Your task to perform on an android device: manage bookmarks in the chrome app Image 0: 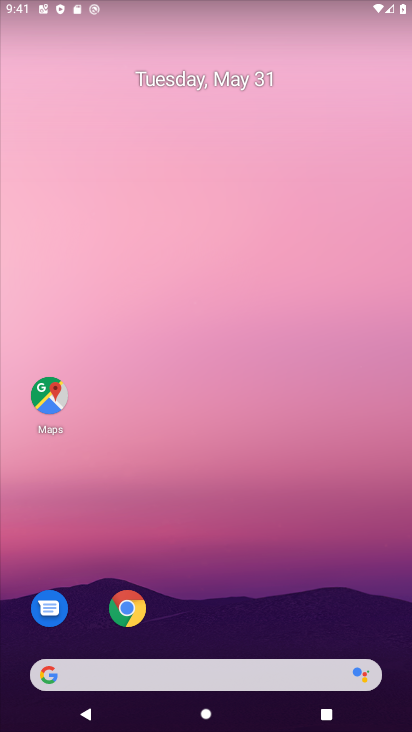
Step 0: click (134, 592)
Your task to perform on an android device: manage bookmarks in the chrome app Image 1: 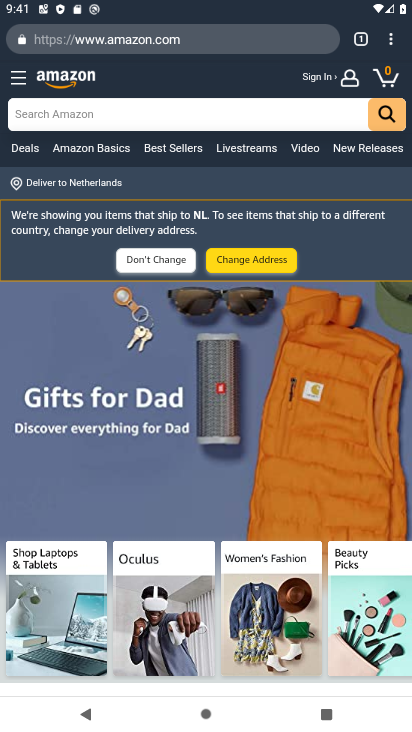
Step 1: click (385, 40)
Your task to perform on an android device: manage bookmarks in the chrome app Image 2: 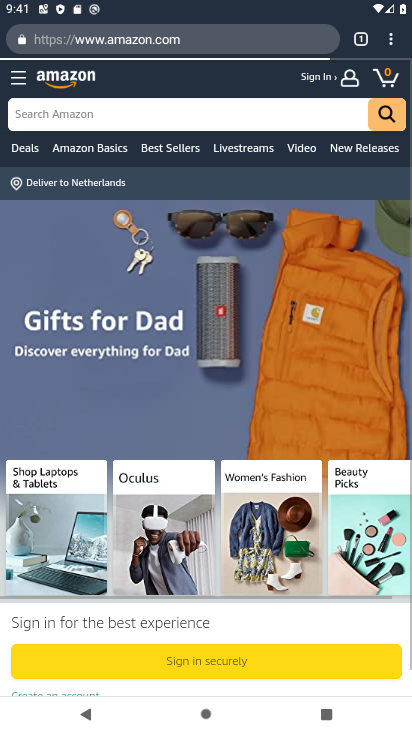
Step 2: click (390, 33)
Your task to perform on an android device: manage bookmarks in the chrome app Image 3: 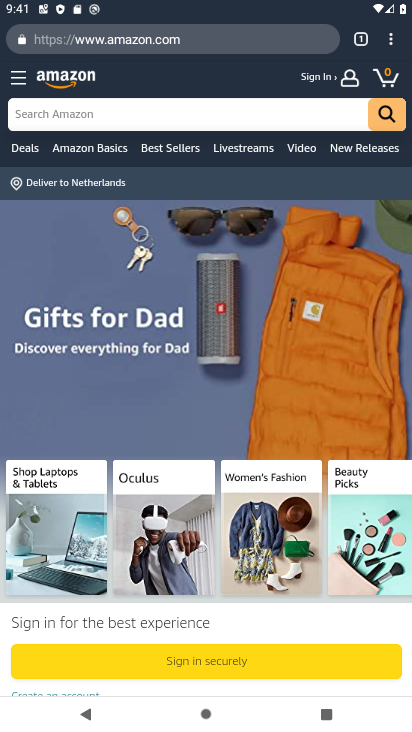
Step 3: drag from (387, 40) to (268, 196)
Your task to perform on an android device: manage bookmarks in the chrome app Image 4: 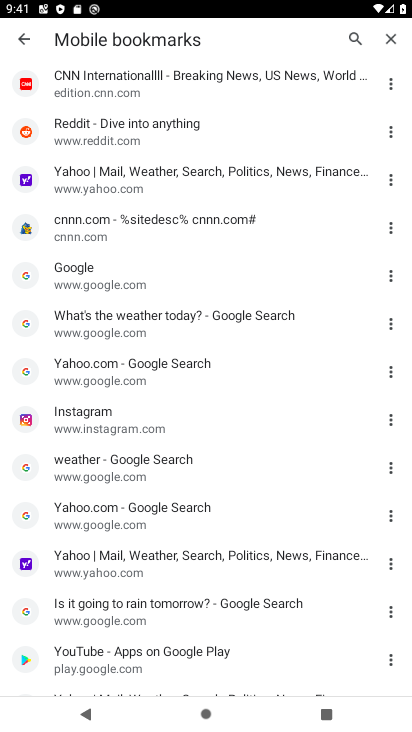
Step 4: drag from (228, 120) to (237, 157)
Your task to perform on an android device: manage bookmarks in the chrome app Image 5: 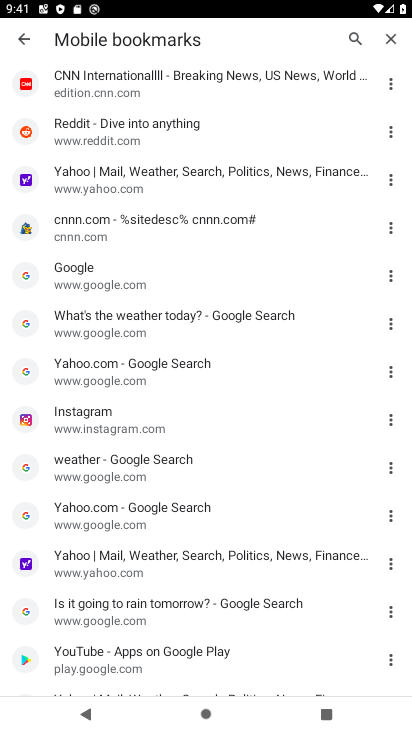
Step 5: click (384, 87)
Your task to perform on an android device: manage bookmarks in the chrome app Image 6: 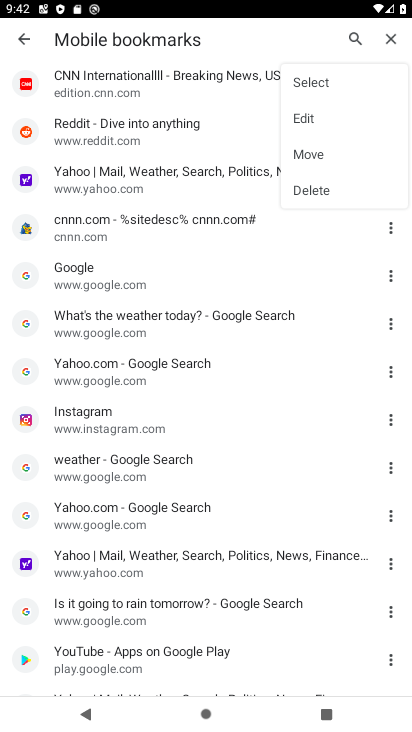
Step 6: click (334, 116)
Your task to perform on an android device: manage bookmarks in the chrome app Image 7: 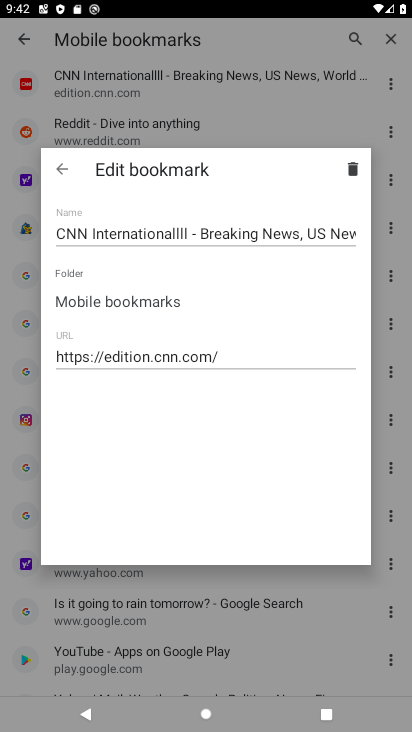
Step 7: task complete